Your task to perform on an android device: Go to battery settings Image 0: 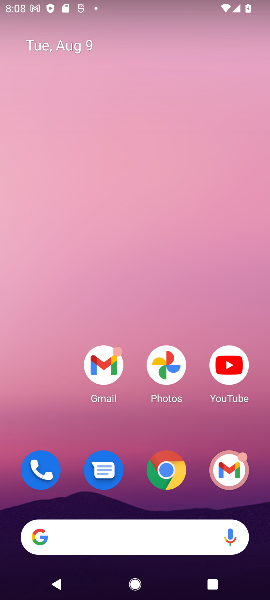
Step 0: drag from (132, 441) to (155, 1)
Your task to perform on an android device: Go to battery settings Image 1: 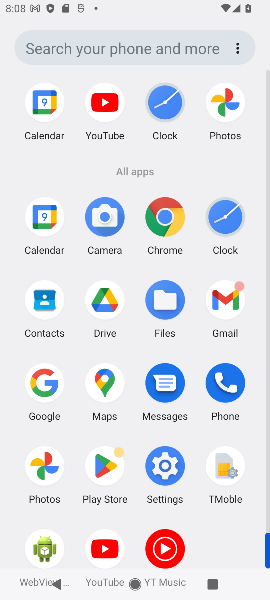
Step 1: click (167, 474)
Your task to perform on an android device: Go to battery settings Image 2: 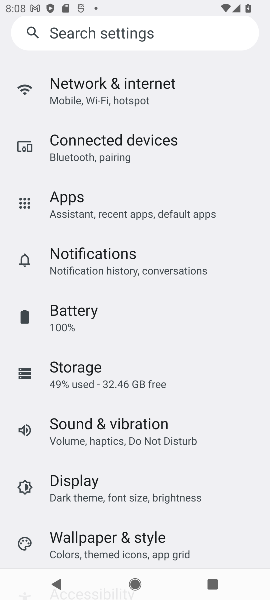
Step 2: click (88, 319)
Your task to perform on an android device: Go to battery settings Image 3: 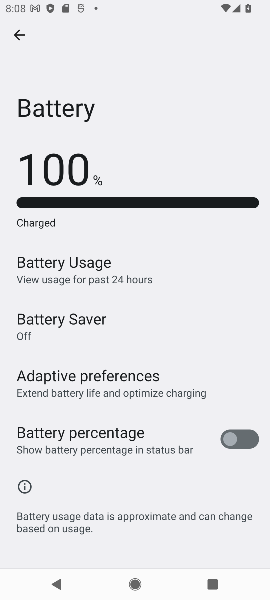
Step 3: task complete